Your task to perform on an android device: check storage Image 0: 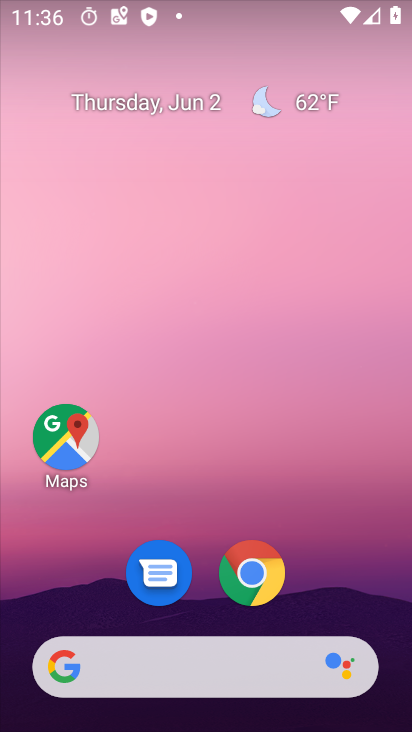
Step 0: drag from (227, 628) to (314, 58)
Your task to perform on an android device: check storage Image 1: 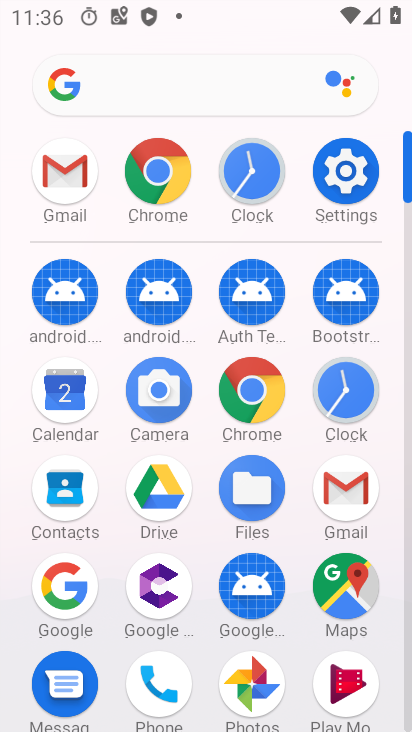
Step 1: click (350, 171)
Your task to perform on an android device: check storage Image 2: 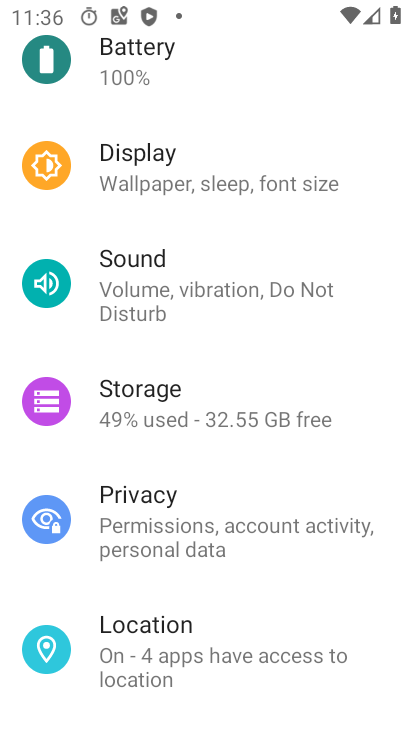
Step 2: click (249, 412)
Your task to perform on an android device: check storage Image 3: 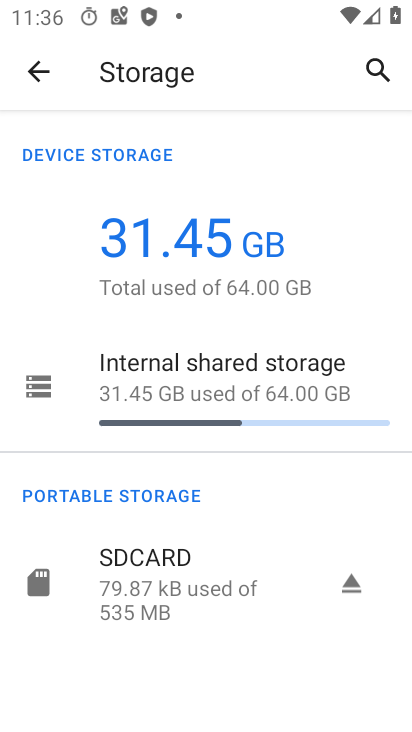
Step 3: task complete